Your task to perform on an android device: Search for pizza restaurants on Maps Image 0: 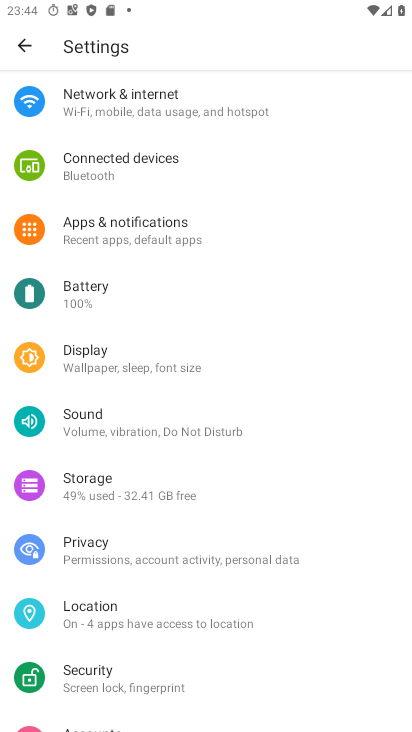
Step 0: press home button
Your task to perform on an android device: Search for pizza restaurants on Maps Image 1: 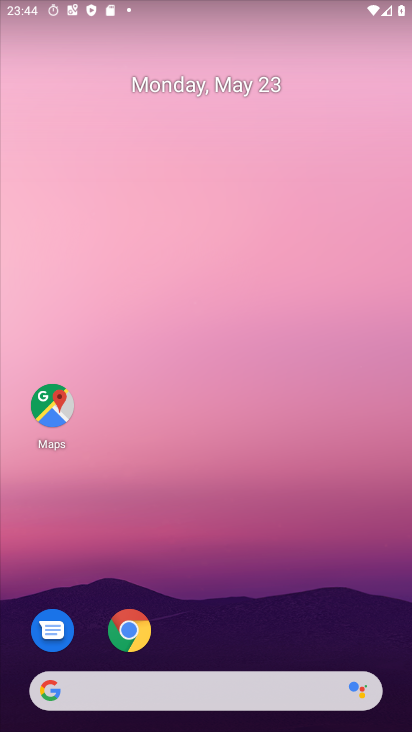
Step 1: click (50, 414)
Your task to perform on an android device: Search for pizza restaurants on Maps Image 2: 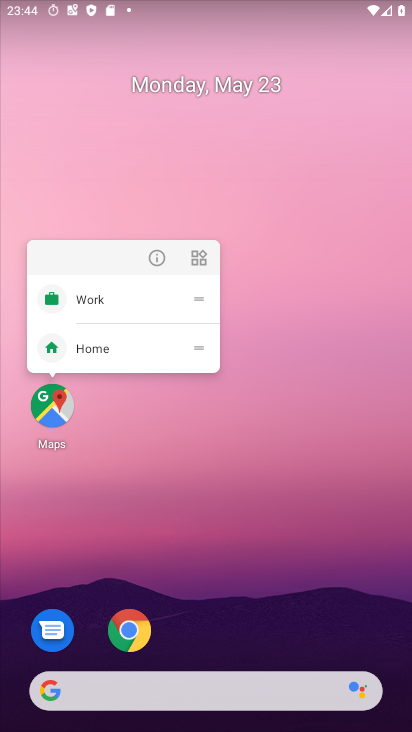
Step 2: click (51, 401)
Your task to perform on an android device: Search for pizza restaurants on Maps Image 3: 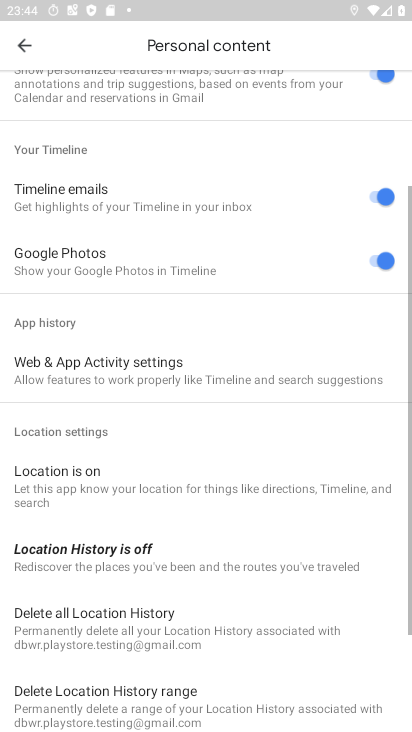
Step 3: click (28, 46)
Your task to perform on an android device: Search for pizza restaurants on Maps Image 4: 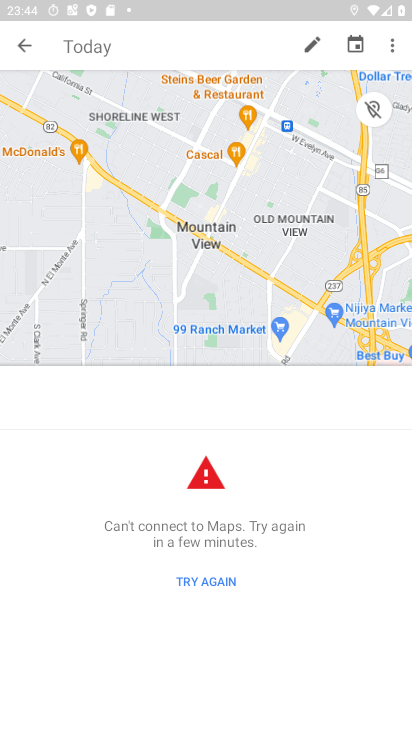
Step 4: click (28, 46)
Your task to perform on an android device: Search for pizza restaurants on Maps Image 5: 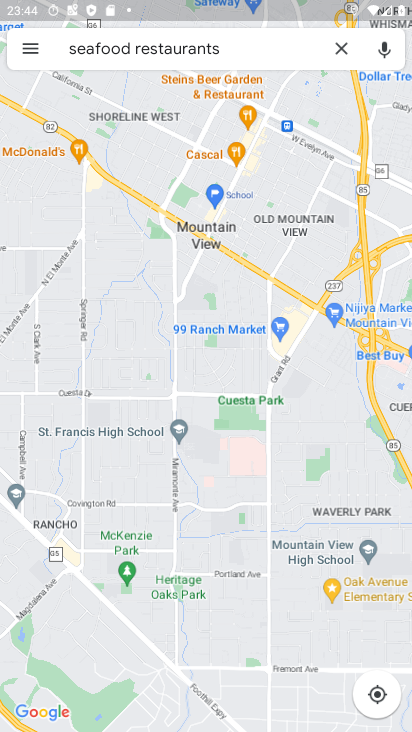
Step 5: click (338, 54)
Your task to perform on an android device: Search for pizza restaurants on Maps Image 6: 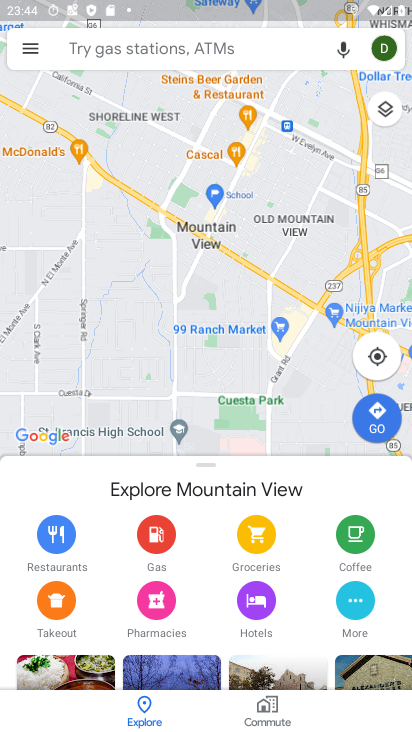
Step 6: click (75, 48)
Your task to perform on an android device: Search for pizza restaurants on Maps Image 7: 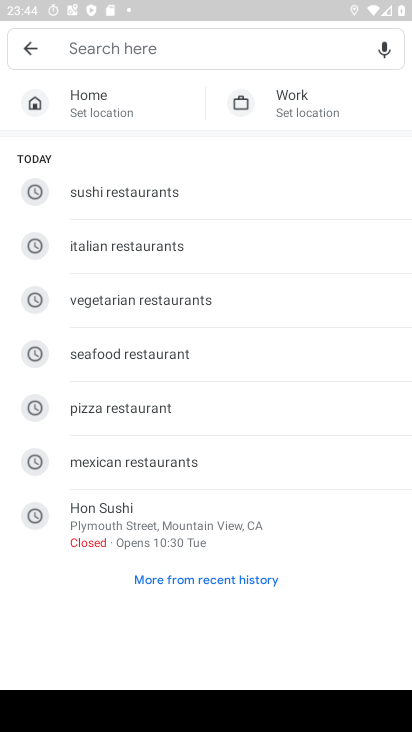
Step 7: type "pizza restaurants"
Your task to perform on an android device: Search for pizza restaurants on Maps Image 8: 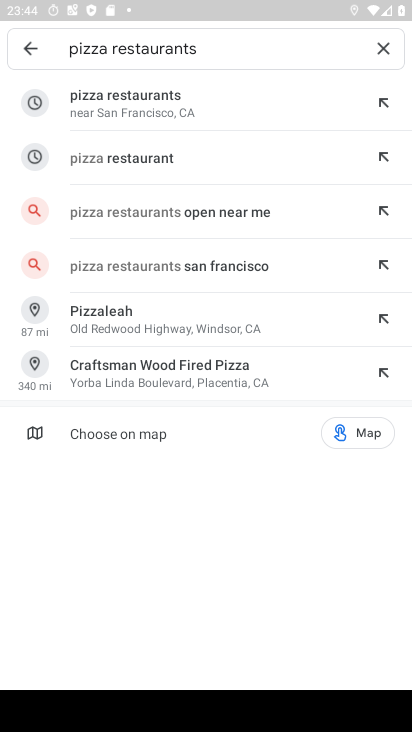
Step 8: click (99, 114)
Your task to perform on an android device: Search for pizza restaurants on Maps Image 9: 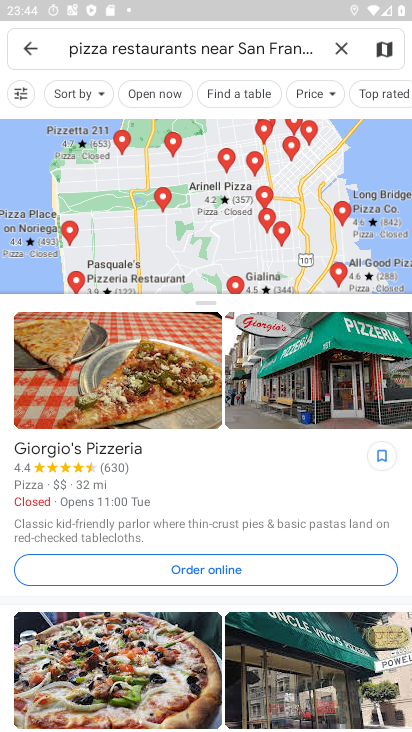
Step 9: task complete